Your task to perform on an android device: search for starred emails in the gmail app Image 0: 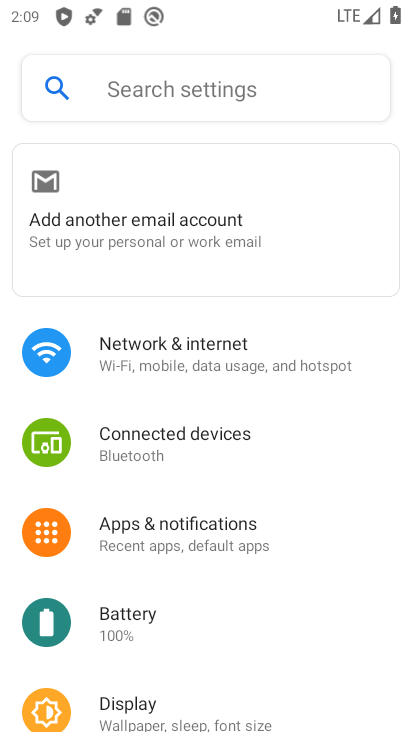
Step 0: press home button
Your task to perform on an android device: search for starred emails in the gmail app Image 1: 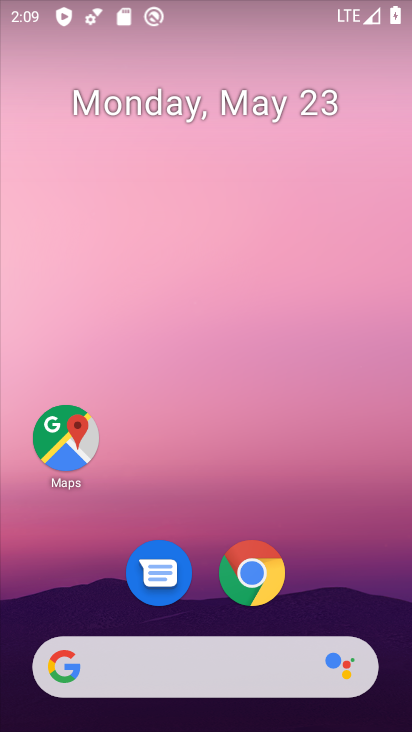
Step 1: drag from (306, 483) to (274, 40)
Your task to perform on an android device: search for starred emails in the gmail app Image 2: 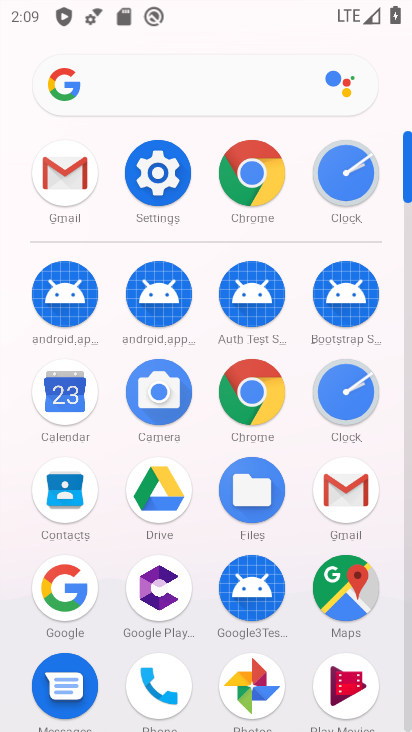
Step 2: click (56, 192)
Your task to perform on an android device: search for starred emails in the gmail app Image 3: 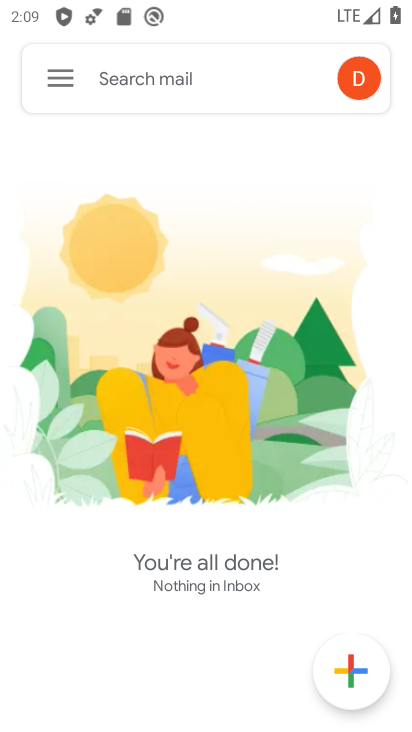
Step 3: click (61, 101)
Your task to perform on an android device: search for starred emails in the gmail app Image 4: 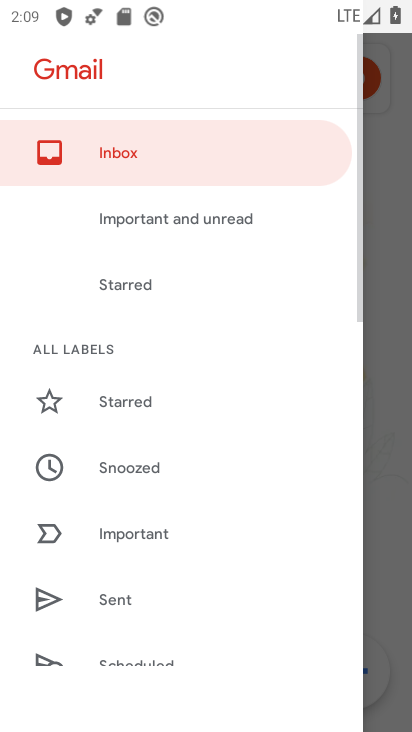
Step 4: click (119, 396)
Your task to perform on an android device: search for starred emails in the gmail app Image 5: 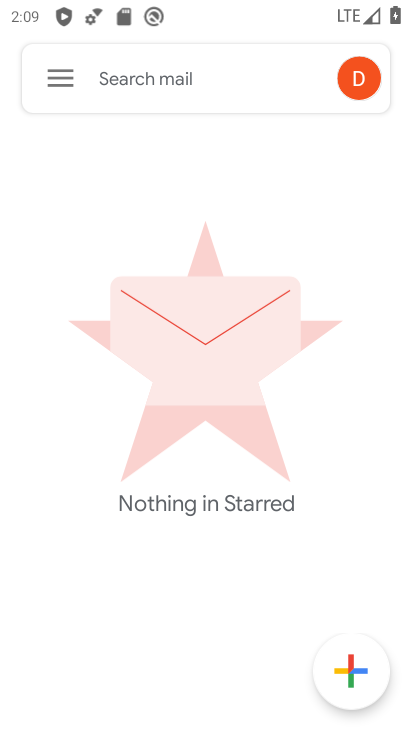
Step 5: task complete